Your task to perform on an android device: Search for Mexican restaurants on Maps Image 0: 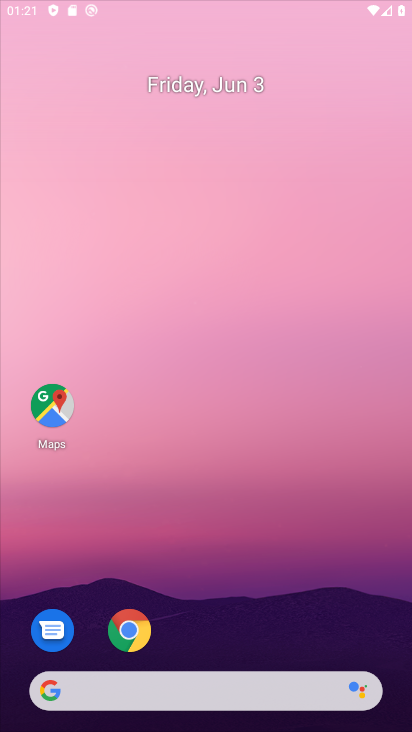
Step 0: drag from (242, 504) to (210, 139)
Your task to perform on an android device: Search for Mexican restaurants on Maps Image 1: 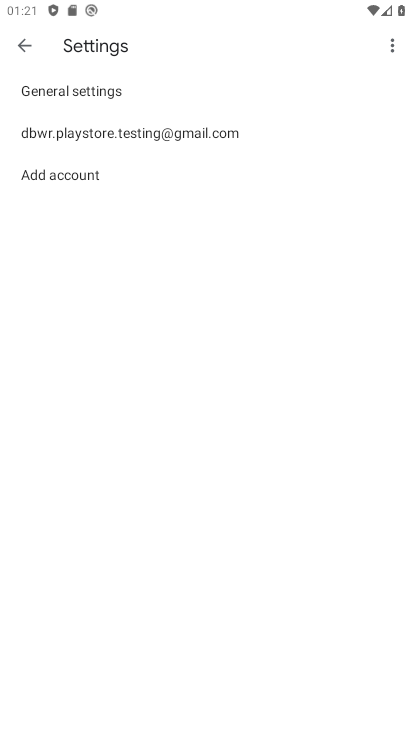
Step 1: press home button
Your task to perform on an android device: Search for Mexican restaurants on Maps Image 2: 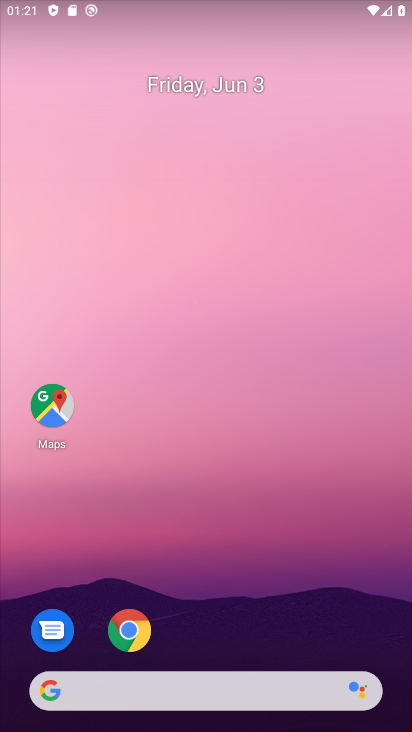
Step 2: click (57, 405)
Your task to perform on an android device: Search for Mexican restaurants on Maps Image 3: 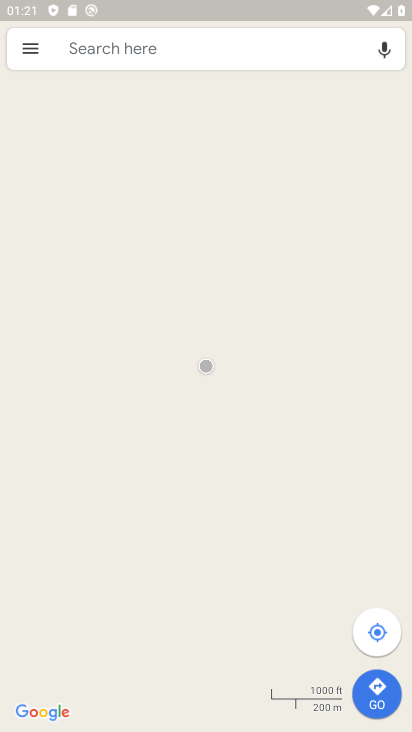
Step 3: click (172, 38)
Your task to perform on an android device: Search for Mexican restaurants on Maps Image 4: 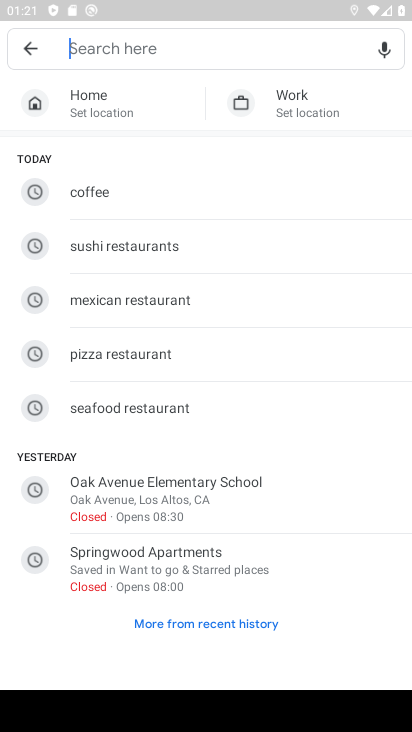
Step 4: click (160, 301)
Your task to perform on an android device: Search for Mexican restaurants on Maps Image 5: 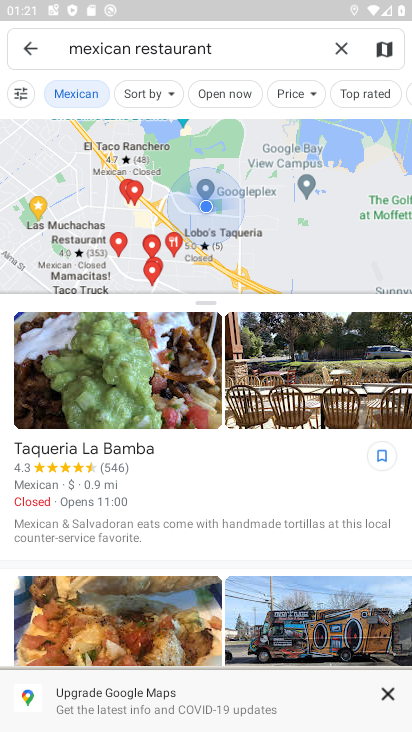
Step 5: task complete